Your task to perform on an android device: turn pop-ups on in chrome Image 0: 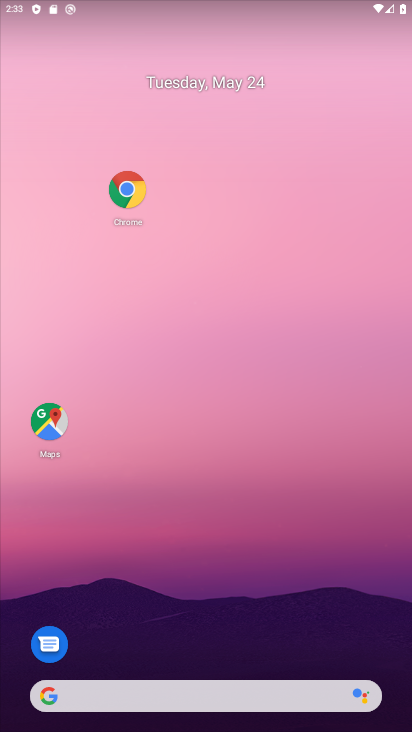
Step 0: click (130, 185)
Your task to perform on an android device: turn pop-ups on in chrome Image 1: 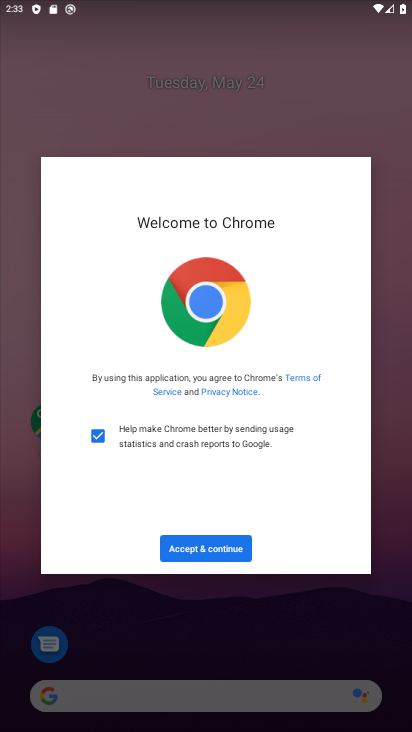
Step 1: click (194, 554)
Your task to perform on an android device: turn pop-ups on in chrome Image 2: 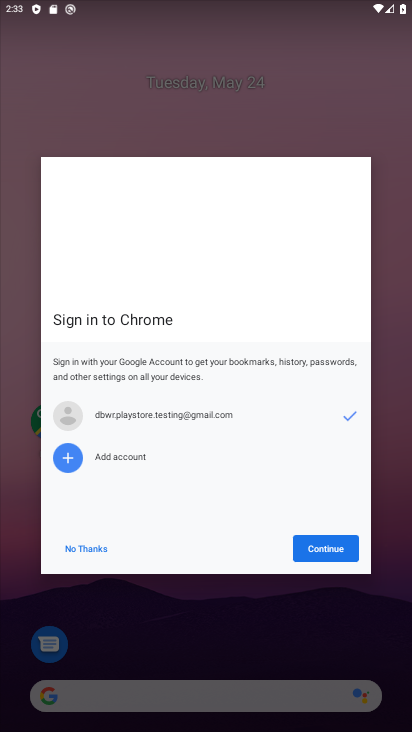
Step 2: click (348, 556)
Your task to perform on an android device: turn pop-ups on in chrome Image 3: 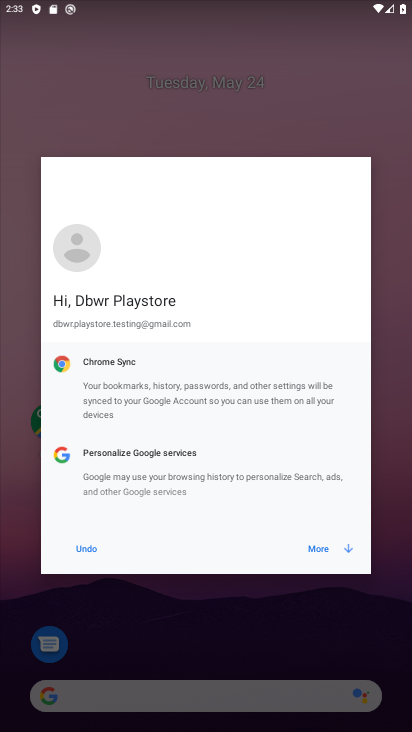
Step 3: click (332, 549)
Your task to perform on an android device: turn pop-ups on in chrome Image 4: 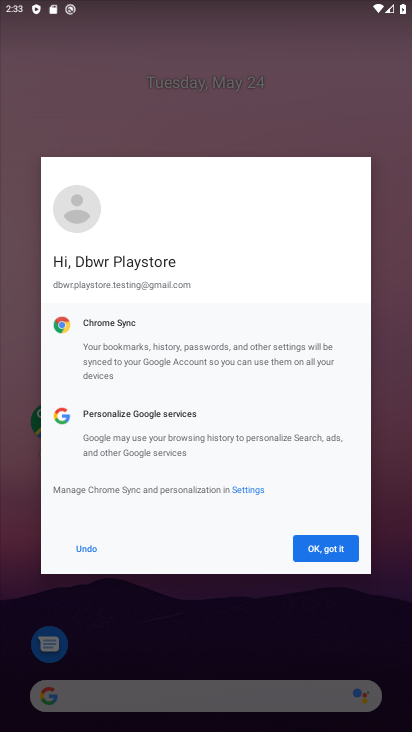
Step 4: click (332, 549)
Your task to perform on an android device: turn pop-ups on in chrome Image 5: 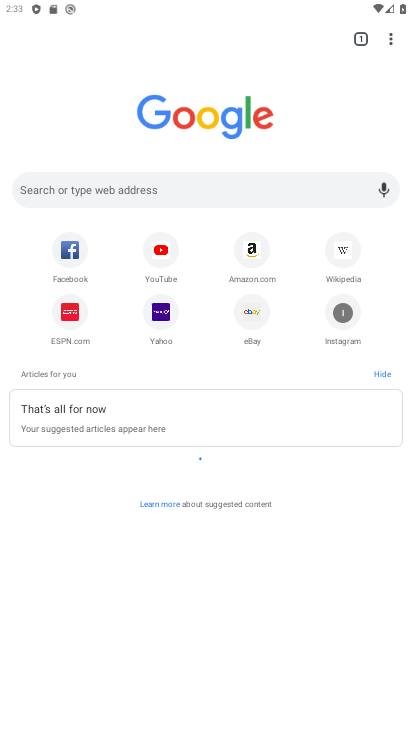
Step 5: click (385, 35)
Your task to perform on an android device: turn pop-ups on in chrome Image 6: 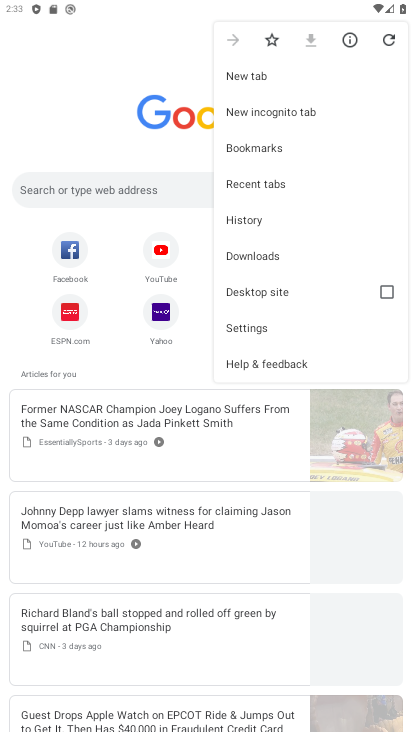
Step 6: click (258, 326)
Your task to perform on an android device: turn pop-ups on in chrome Image 7: 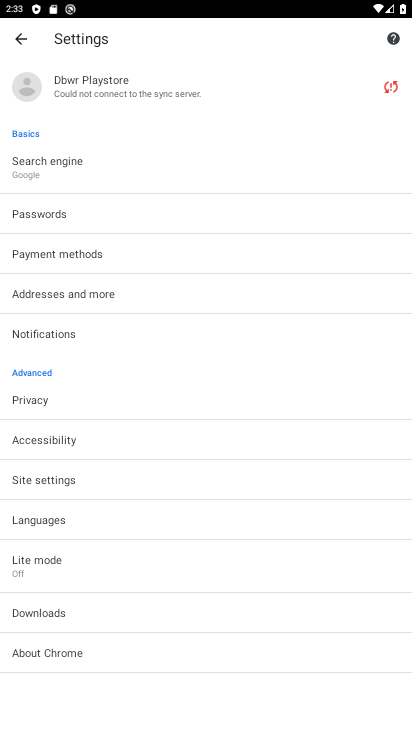
Step 7: click (57, 485)
Your task to perform on an android device: turn pop-ups on in chrome Image 8: 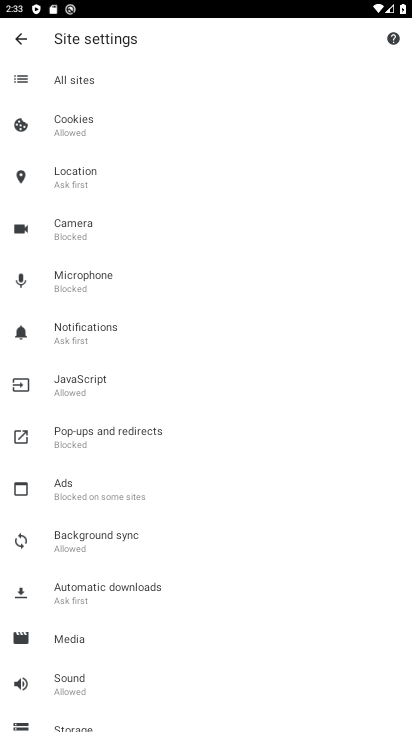
Step 8: click (109, 432)
Your task to perform on an android device: turn pop-ups on in chrome Image 9: 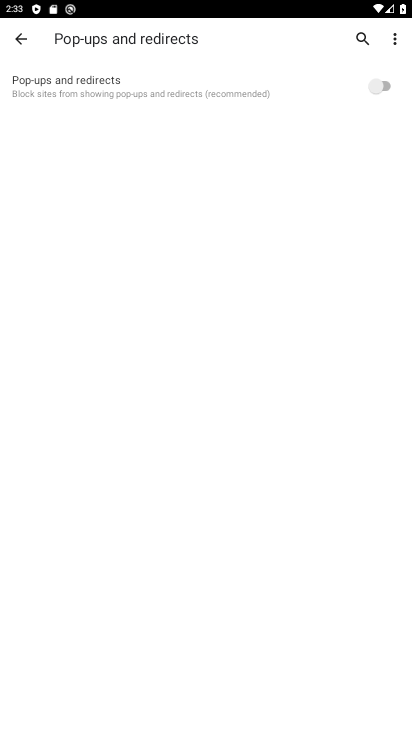
Step 9: click (375, 80)
Your task to perform on an android device: turn pop-ups on in chrome Image 10: 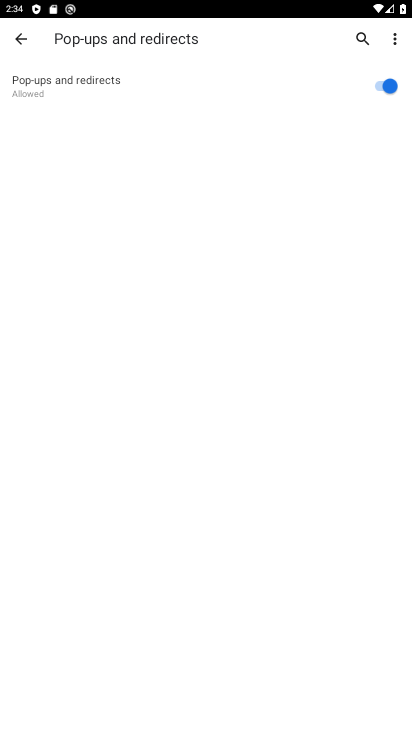
Step 10: task complete